Your task to perform on an android device: see sites visited before in the chrome app Image 0: 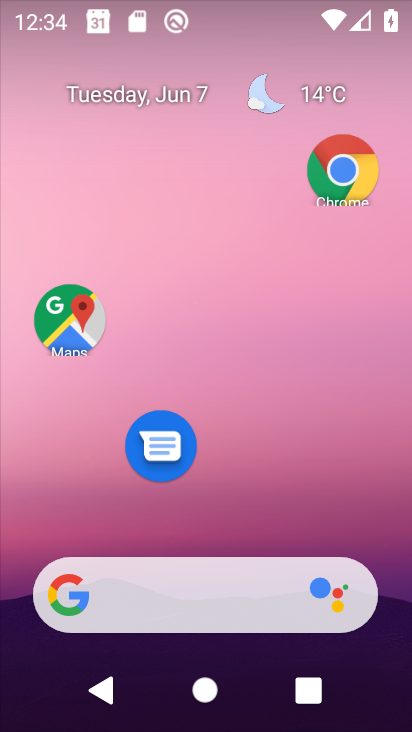
Step 0: click (340, 162)
Your task to perform on an android device: see sites visited before in the chrome app Image 1: 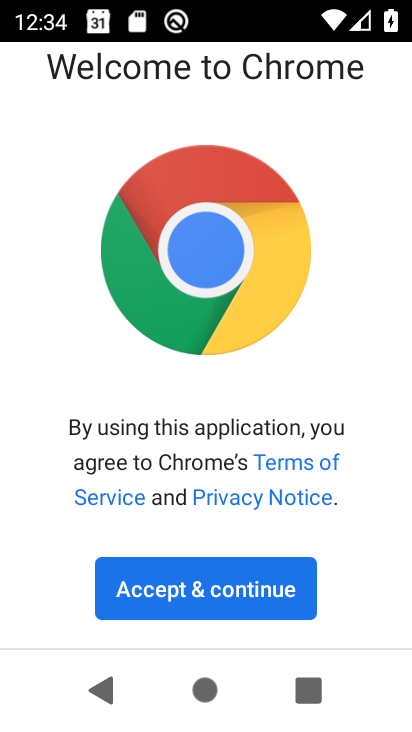
Step 1: click (166, 590)
Your task to perform on an android device: see sites visited before in the chrome app Image 2: 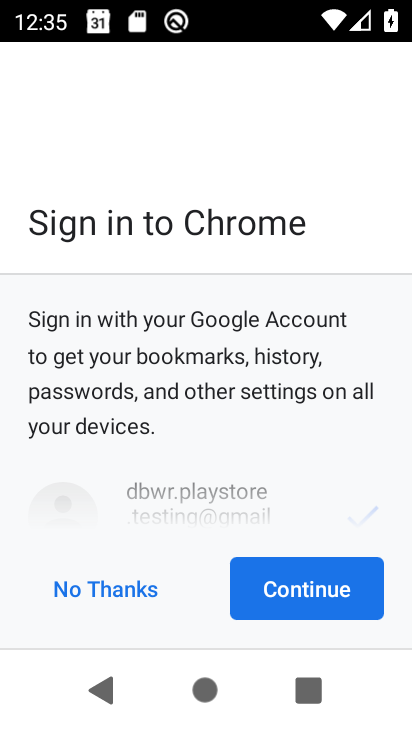
Step 2: click (87, 593)
Your task to perform on an android device: see sites visited before in the chrome app Image 3: 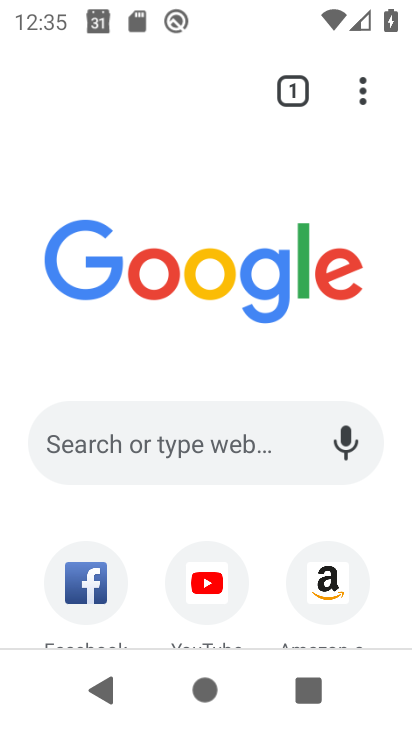
Step 3: task complete